Your task to perform on an android device: check google app version Image 0: 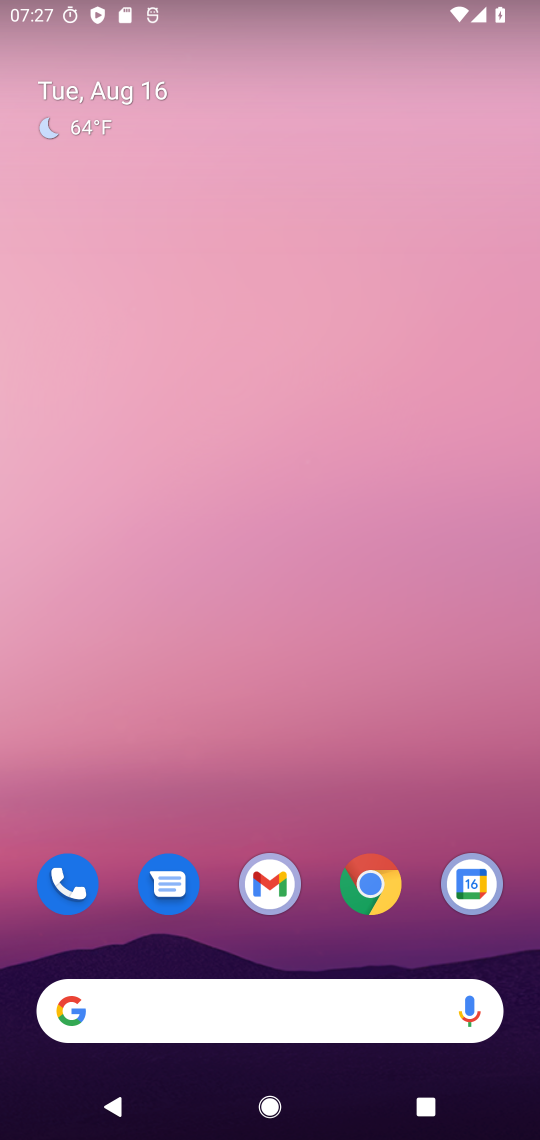
Step 0: press home button
Your task to perform on an android device: check google app version Image 1: 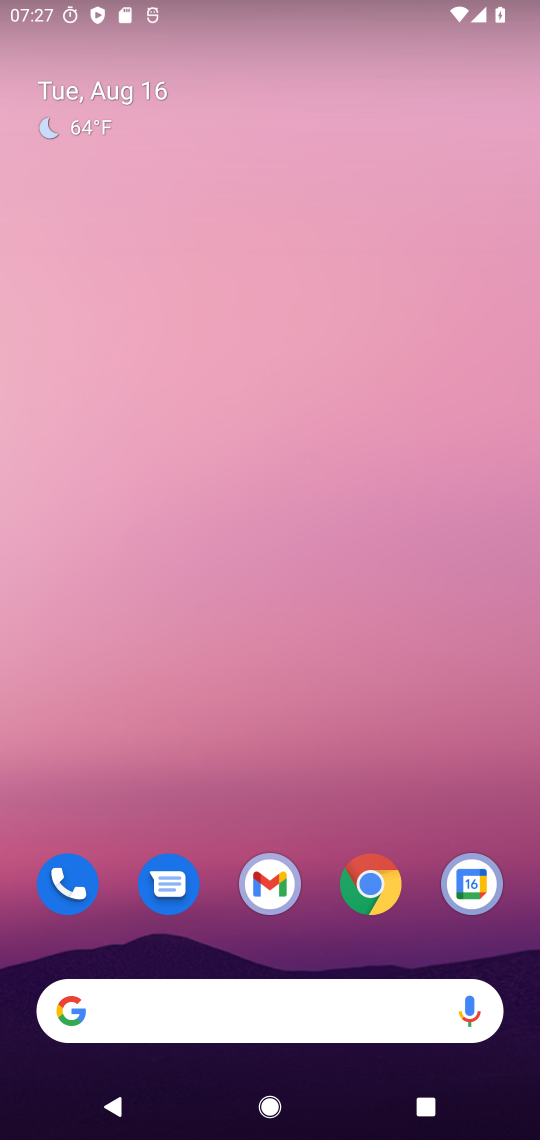
Step 1: drag from (360, 766) to (400, 119)
Your task to perform on an android device: check google app version Image 2: 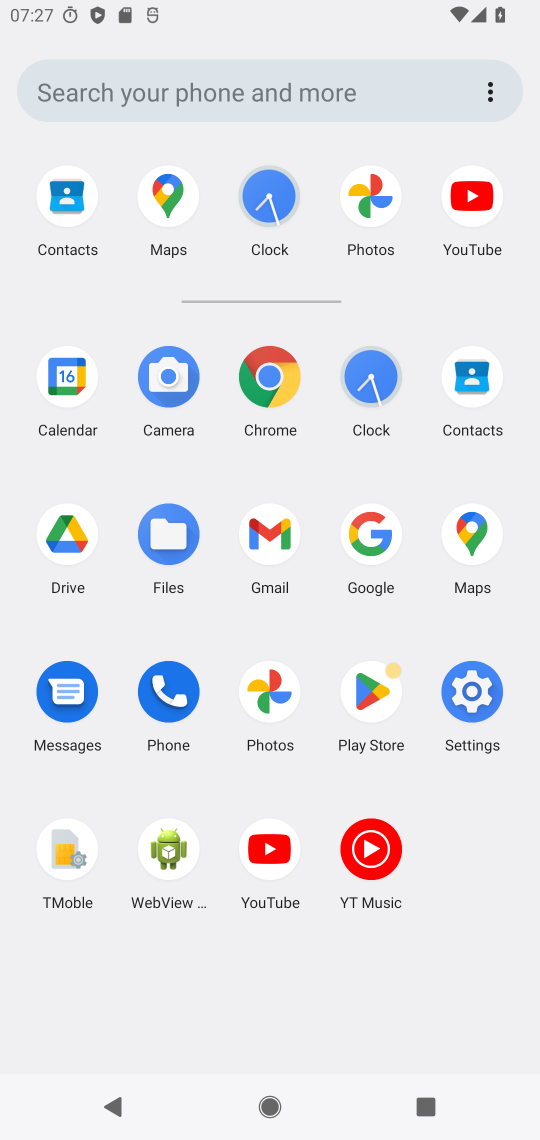
Step 2: click (382, 526)
Your task to perform on an android device: check google app version Image 3: 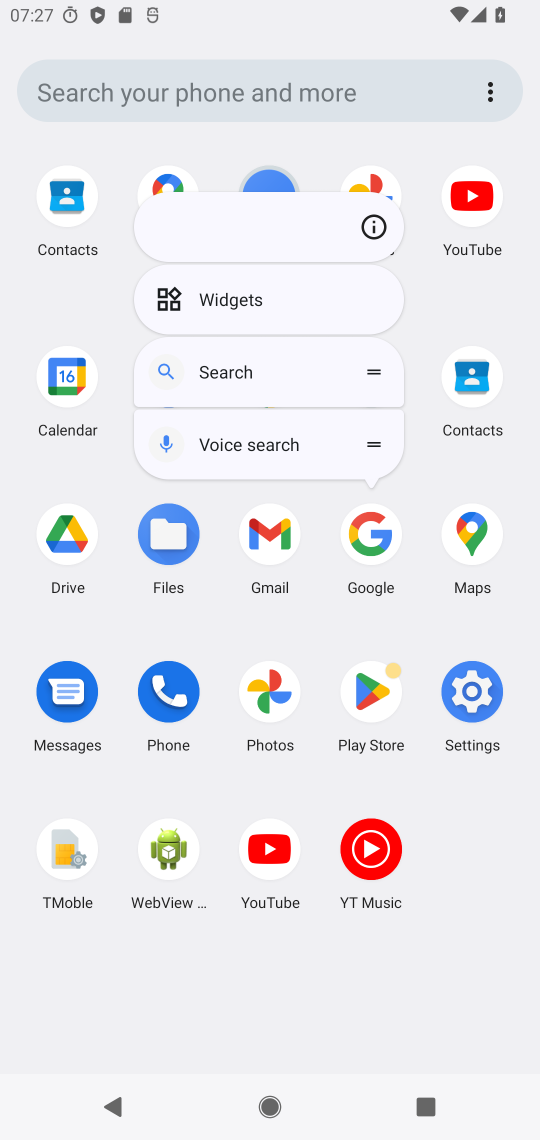
Step 3: click (365, 227)
Your task to perform on an android device: check google app version Image 4: 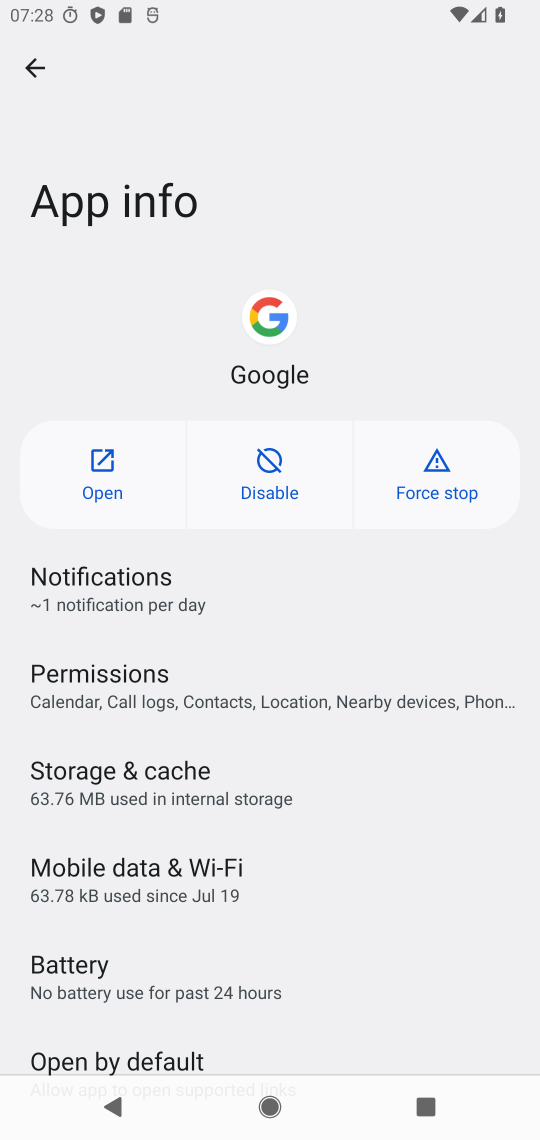
Step 4: task complete